Your task to perform on an android device: turn on the 12-hour format for clock Image 0: 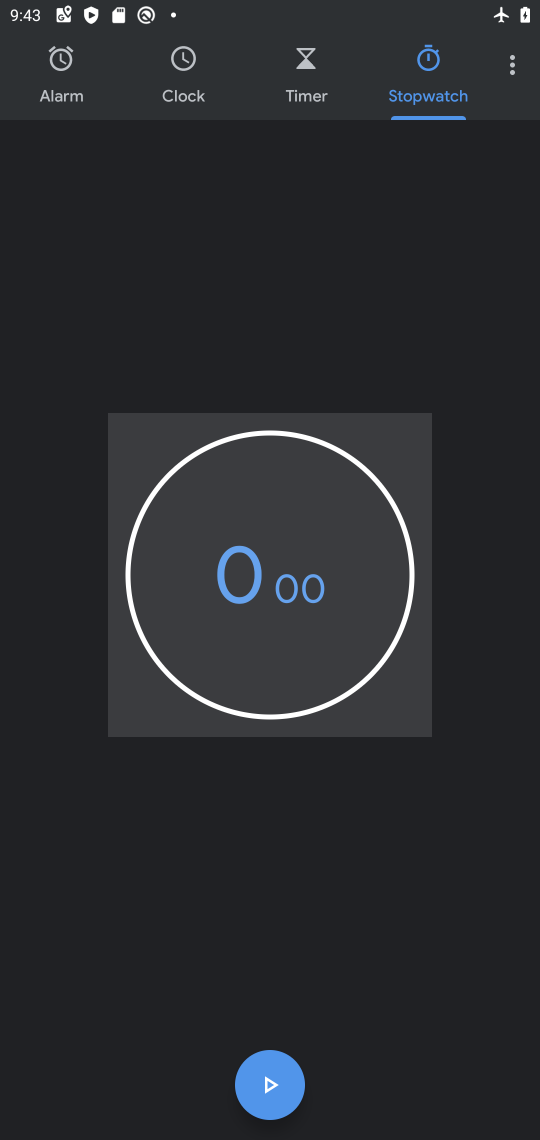
Step 0: press home button
Your task to perform on an android device: turn on the 12-hour format for clock Image 1: 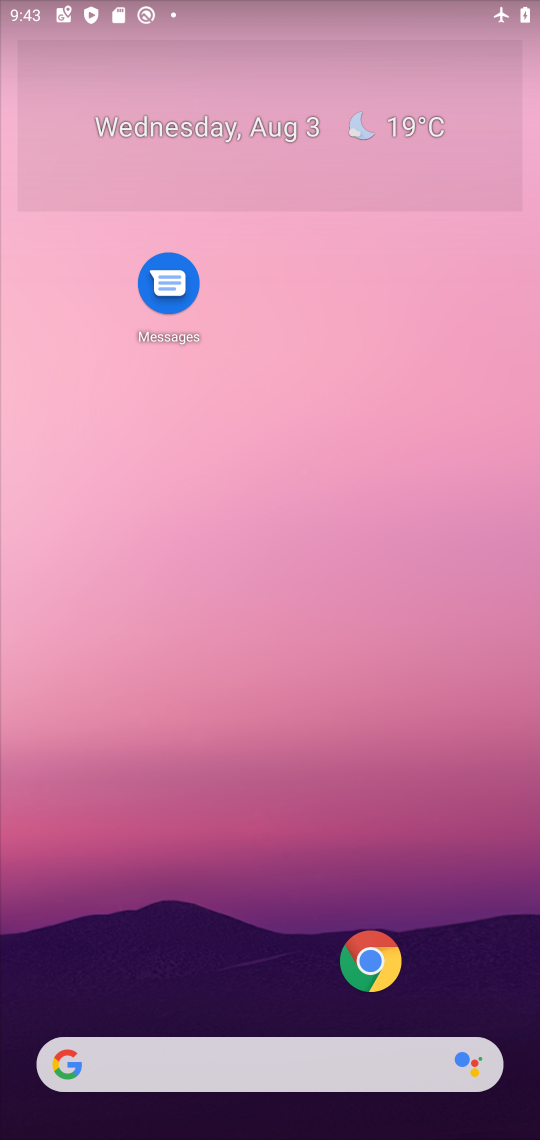
Step 1: drag from (235, 1038) to (157, 114)
Your task to perform on an android device: turn on the 12-hour format for clock Image 2: 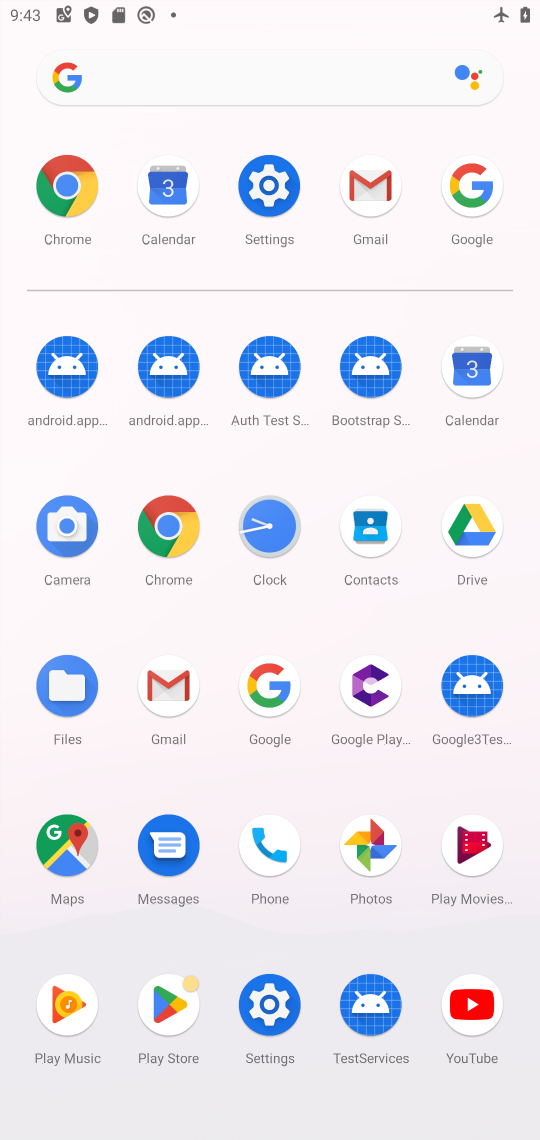
Step 2: click (257, 499)
Your task to perform on an android device: turn on the 12-hour format for clock Image 3: 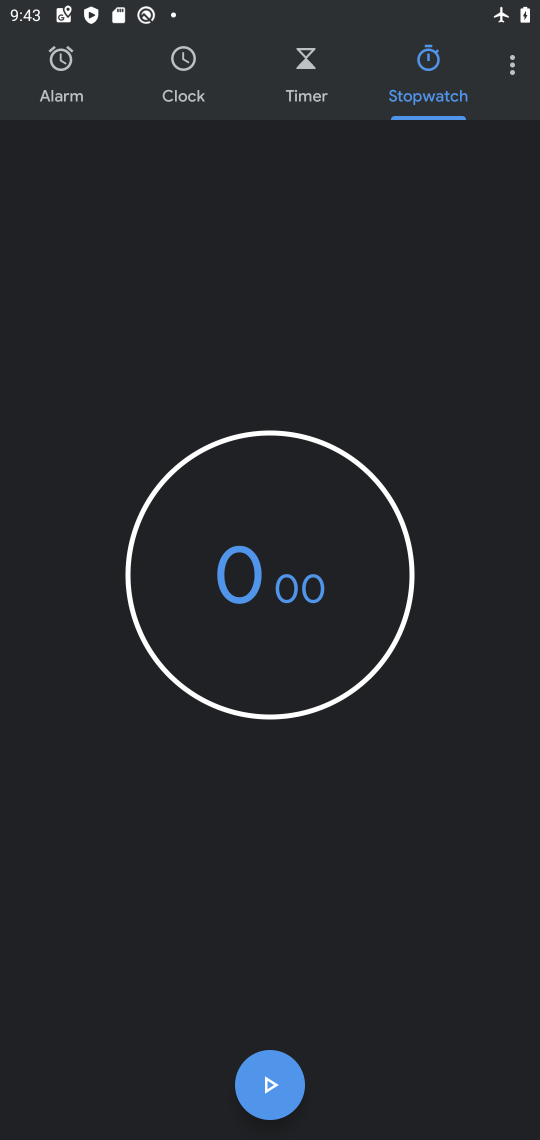
Step 3: drag from (510, 71) to (364, 139)
Your task to perform on an android device: turn on the 12-hour format for clock Image 4: 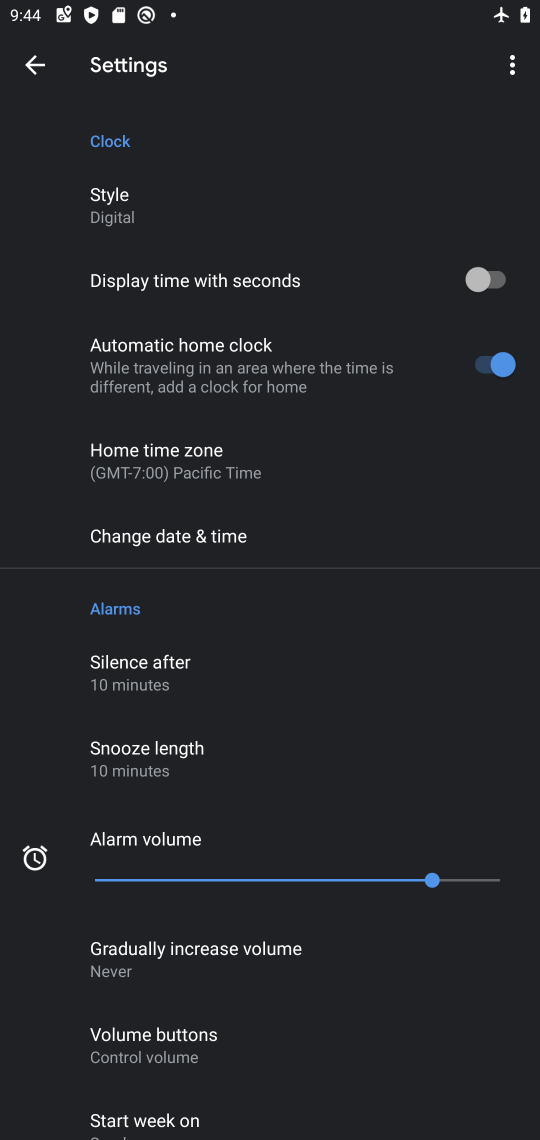
Step 4: click (170, 539)
Your task to perform on an android device: turn on the 12-hour format for clock Image 5: 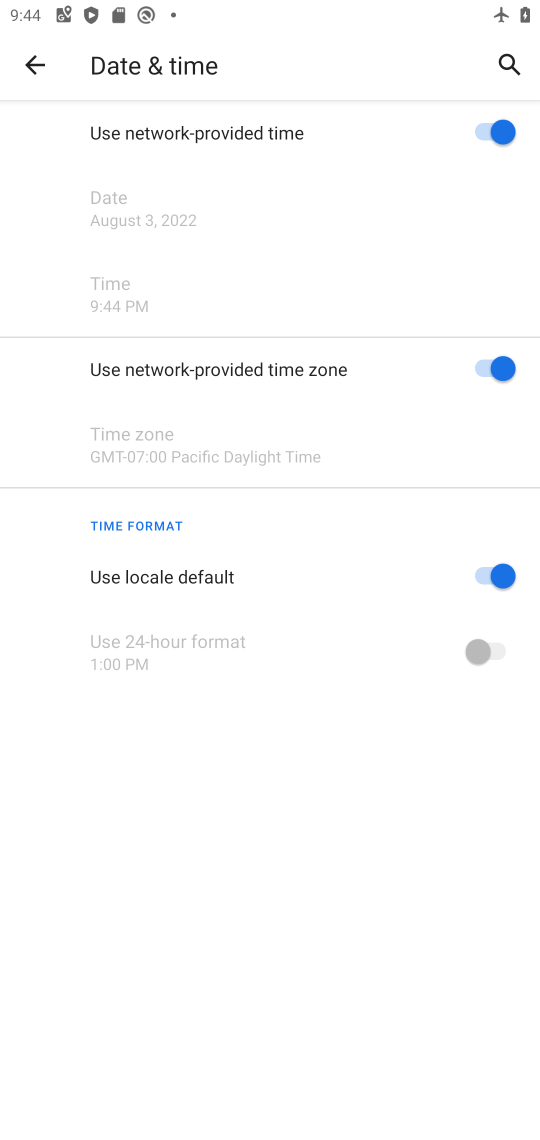
Step 5: click (500, 565)
Your task to perform on an android device: turn on the 12-hour format for clock Image 6: 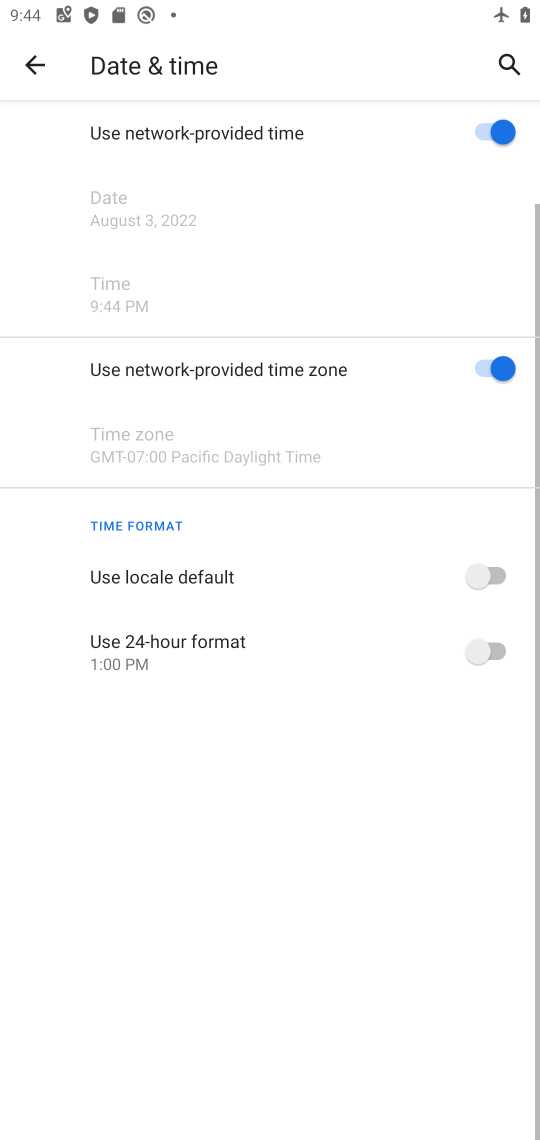
Step 6: click (483, 645)
Your task to perform on an android device: turn on the 12-hour format for clock Image 7: 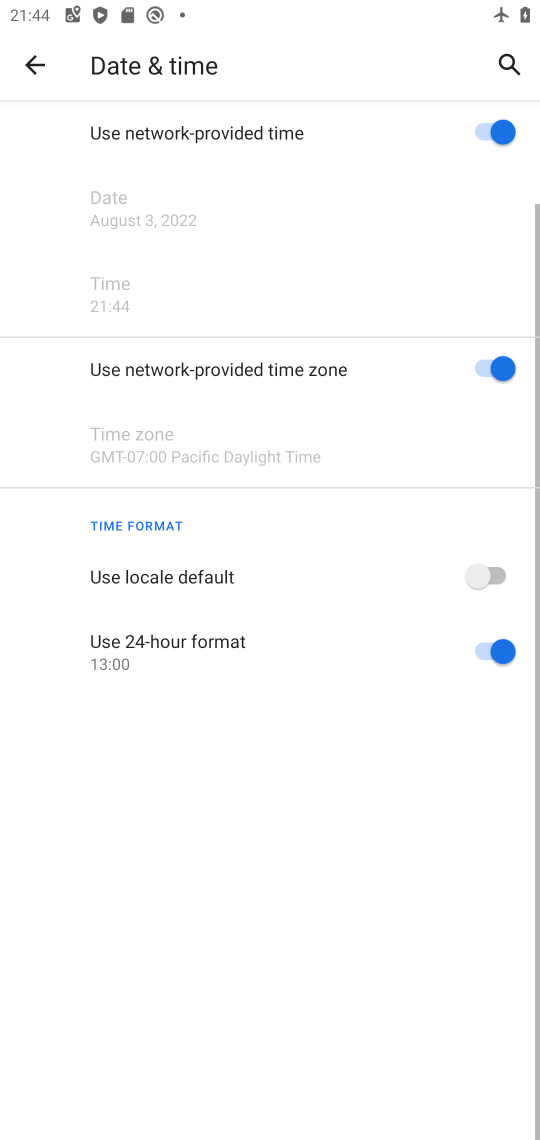
Step 7: click (483, 645)
Your task to perform on an android device: turn on the 12-hour format for clock Image 8: 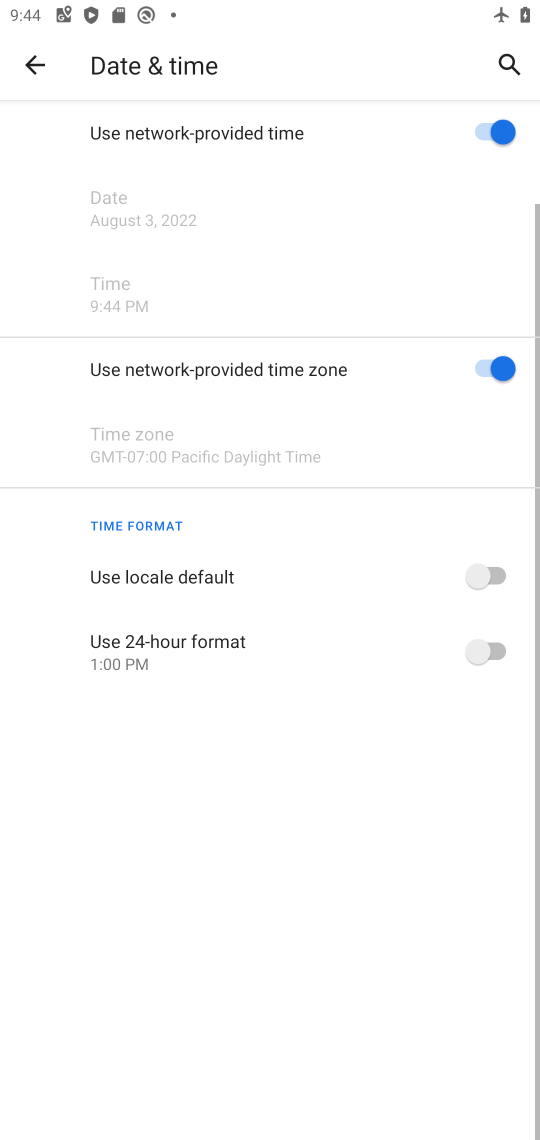
Step 8: task complete